Your task to perform on an android device: Go to Amazon Image 0: 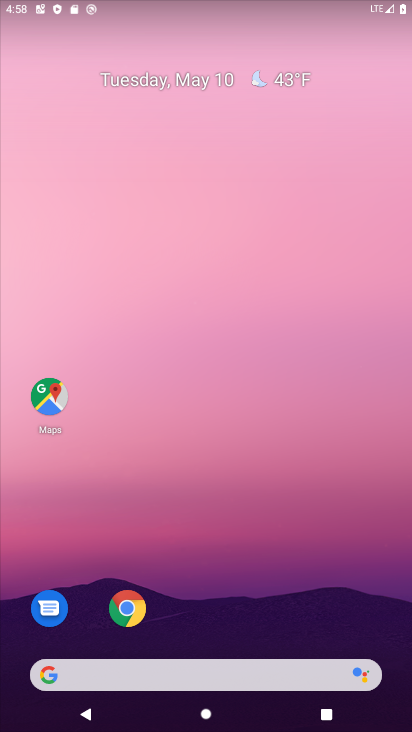
Step 0: drag from (219, 589) to (303, 162)
Your task to perform on an android device: Go to Amazon Image 1: 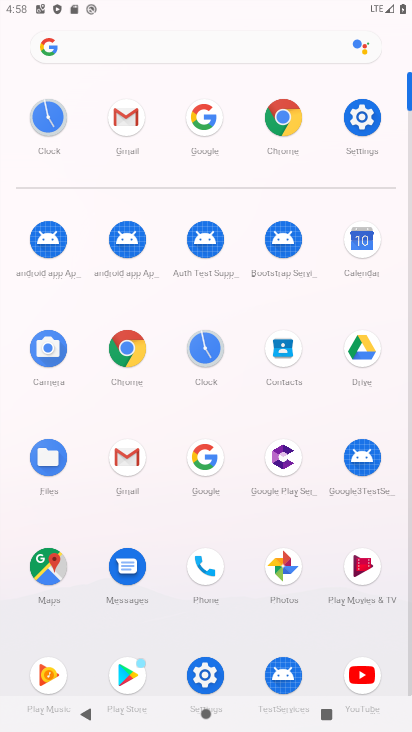
Step 1: click (298, 117)
Your task to perform on an android device: Go to Amazon Image 2: 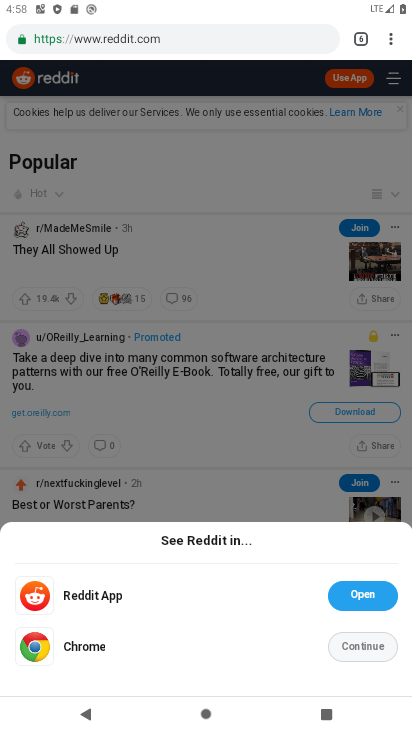
Step 2: click (354, 34)
Your task to perform on an android device: Go to Amazon Image 3: 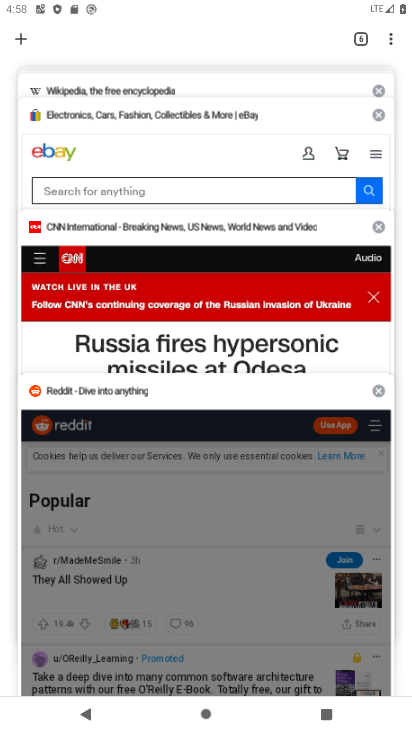
Step 3: click (23, 39)
Your task to perform on an android device: Go to Amazon Image 4: 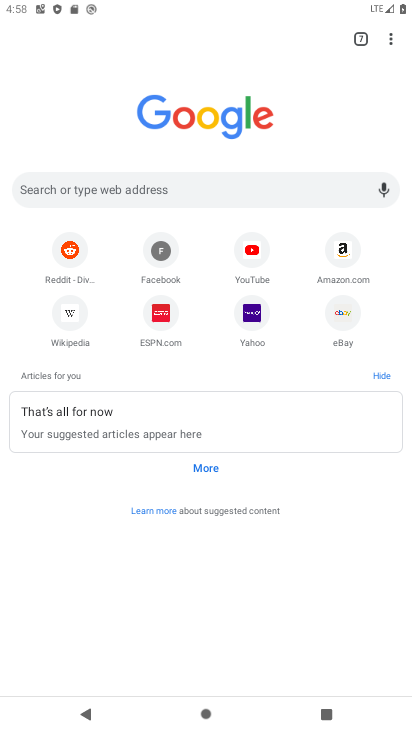
Step 4: click (337, 253)
Your task to perform on an android device: Go to Amazon Image 5: 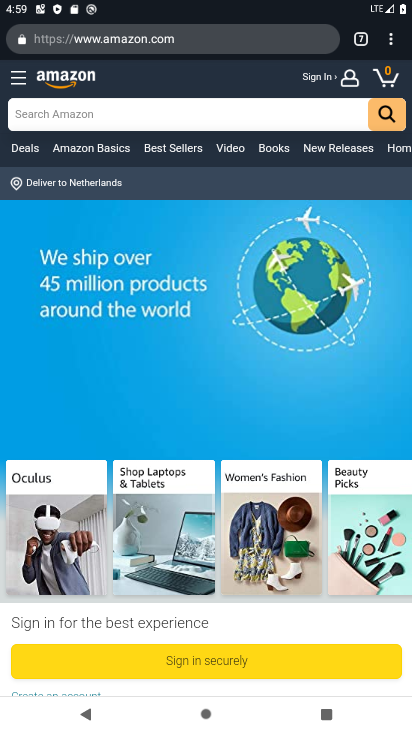
Step 5: task complete